Your task to perform on an android device: Open location settings Image 0: 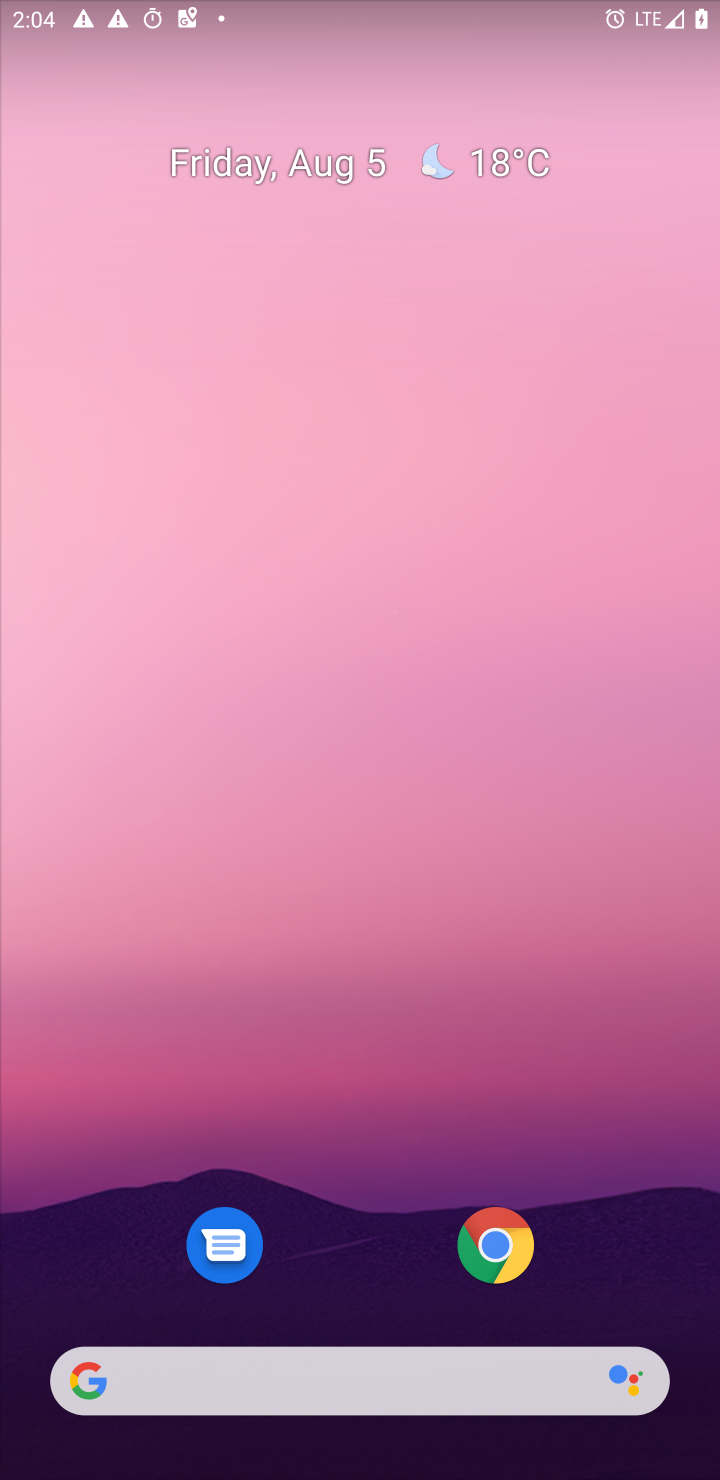
Step 0: drag from (333, 1311) to (342, 149)
Your task to perform on an android device: Open location settings Image 1: 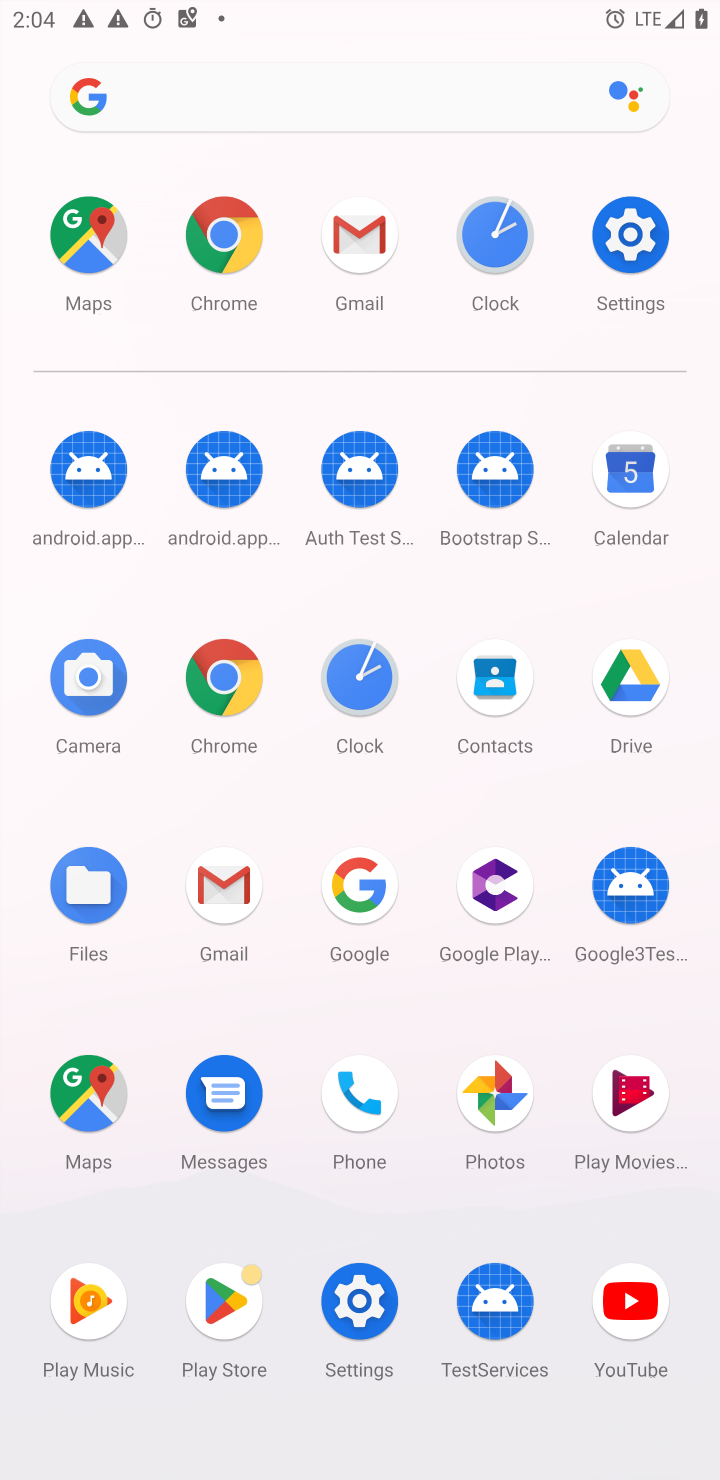
Step 1: click (631, 225)
Your task to perform on an android device: Open location settings Image 2: 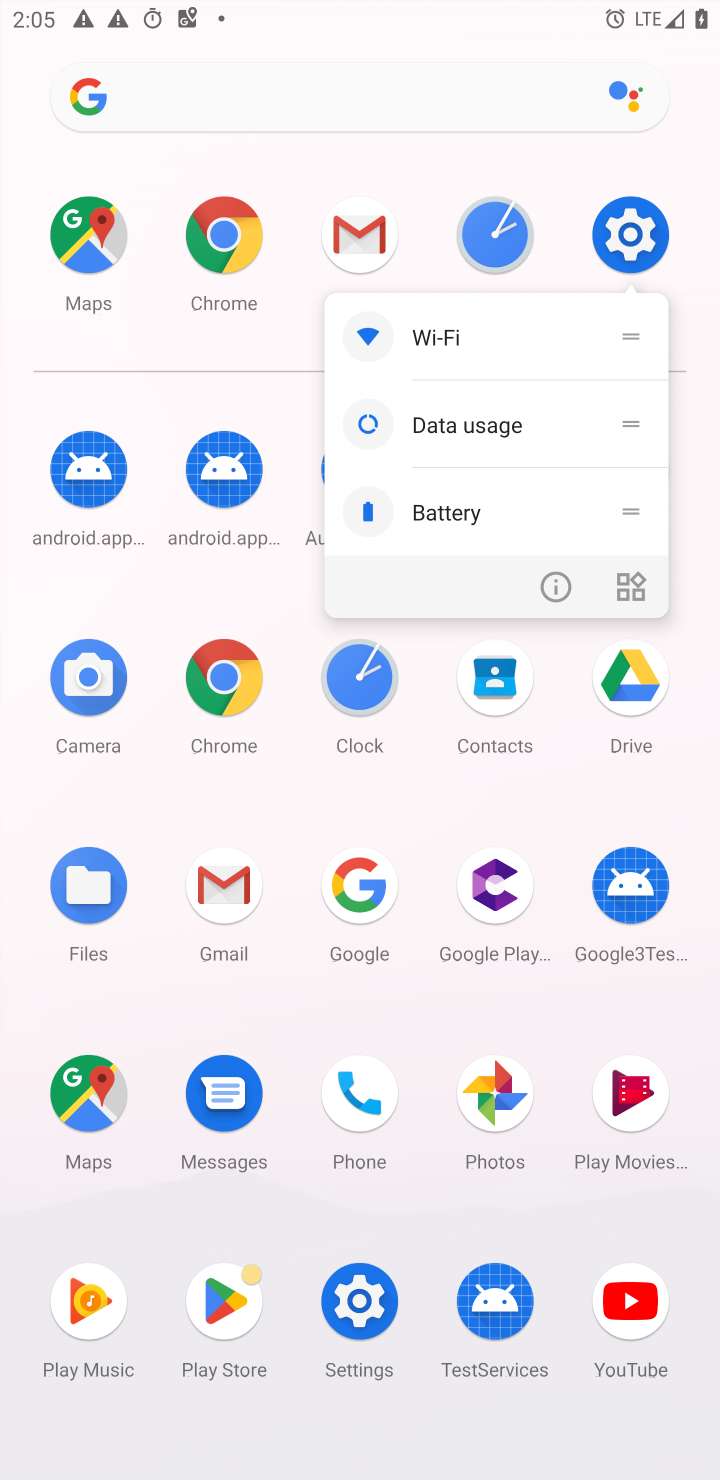
Step 2: click (644, 206)
Your task to perform on an android device: Open location settings Image 3: 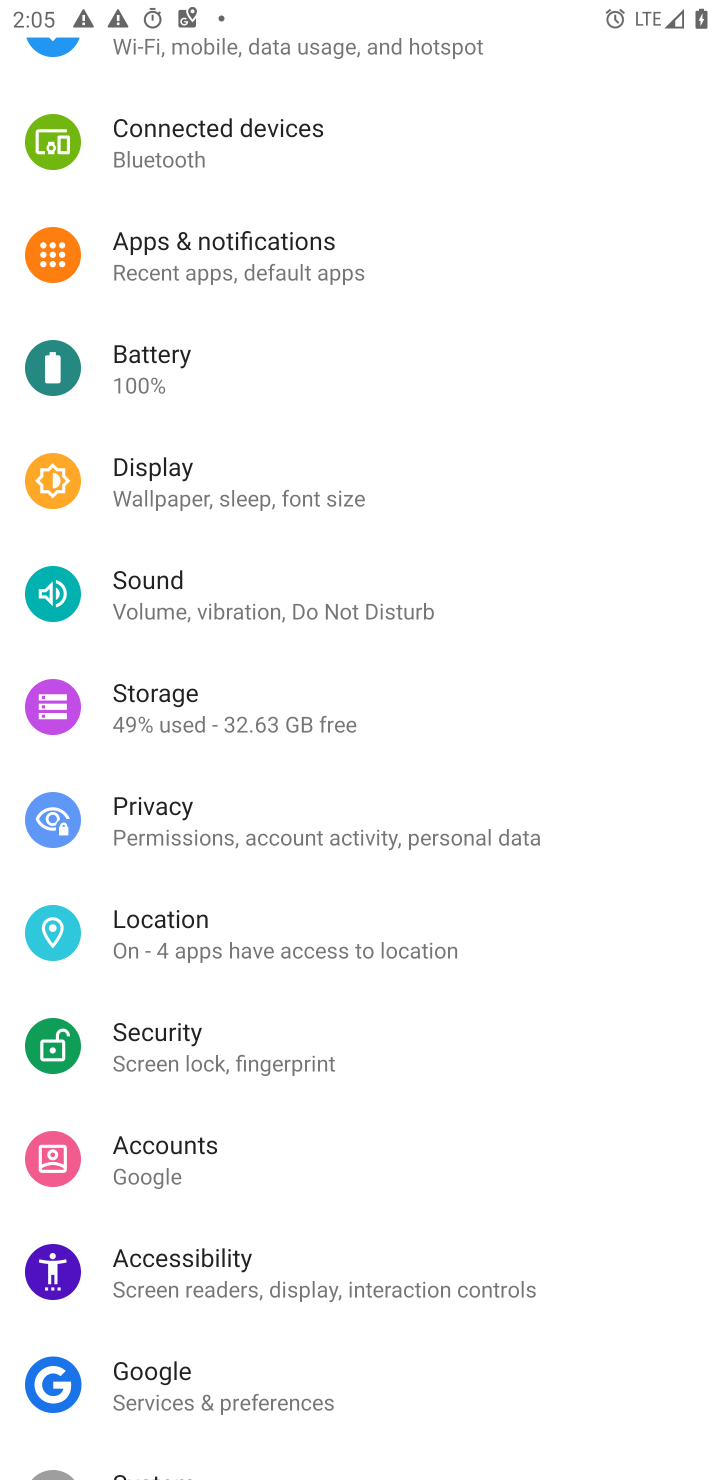
Step 3: click (159, 939)
Your task to perform on an android device: Open location settings Image 4: 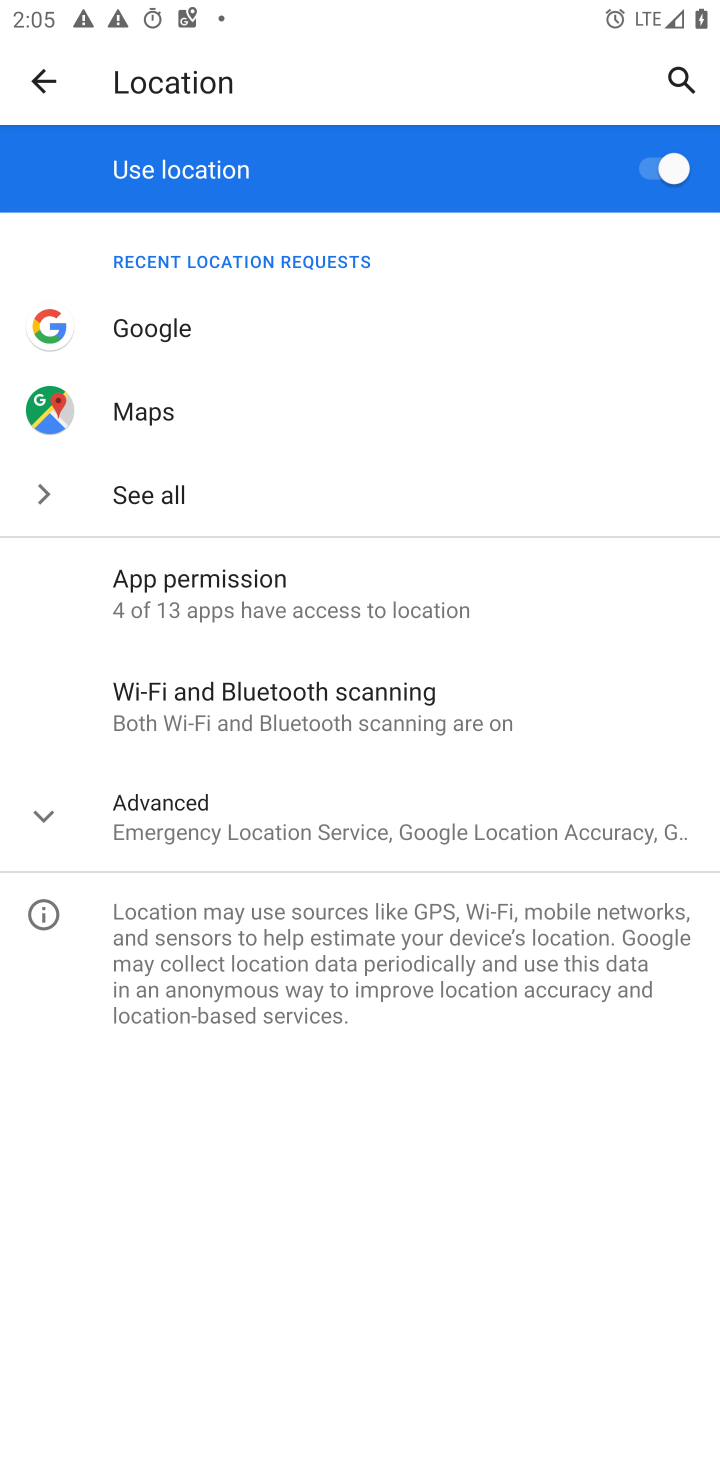
Step 4: task complete